Your task to perform on an android device: Search for the new Nintendo switch on Walmart. Image 0: 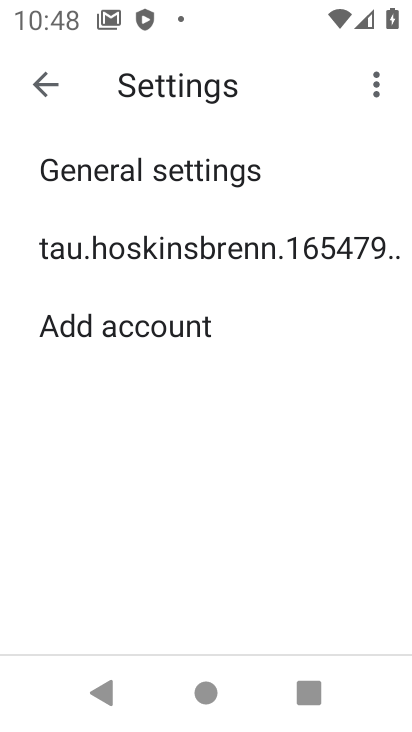
Step 0: press home button
Your task to perform on an android device: Search for the new Nintendo switch on Walmart. Image 1: 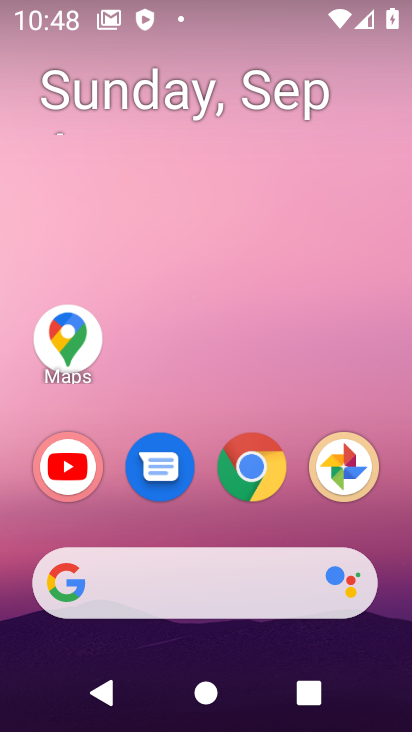
Step 1: click (249, 463)
Your task to perform on an android device: Search for the new Nintendo switch on Walmart. Image 2: 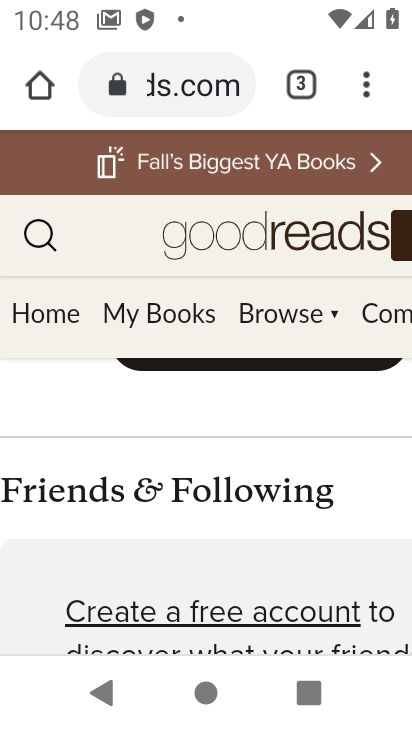
Step 2: click (166, 95)
Your task to perform on an android device: Search for the new Nintendo switch on Walmart. Image 3: 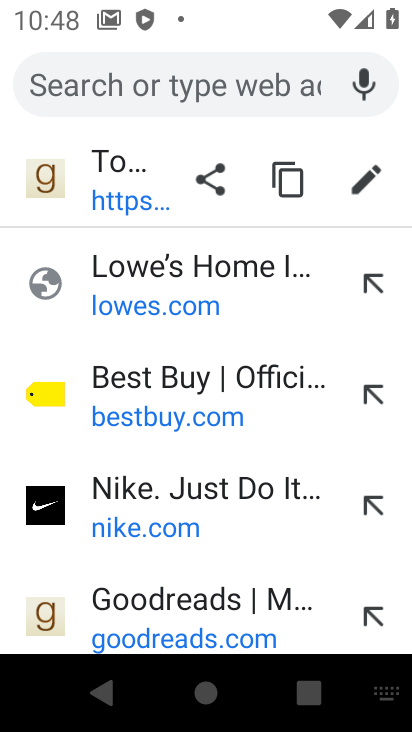
Step 3: type "walmart"
Your task to perform on an android device: Search for the new Nintendo switch on Walmart. Image 4: 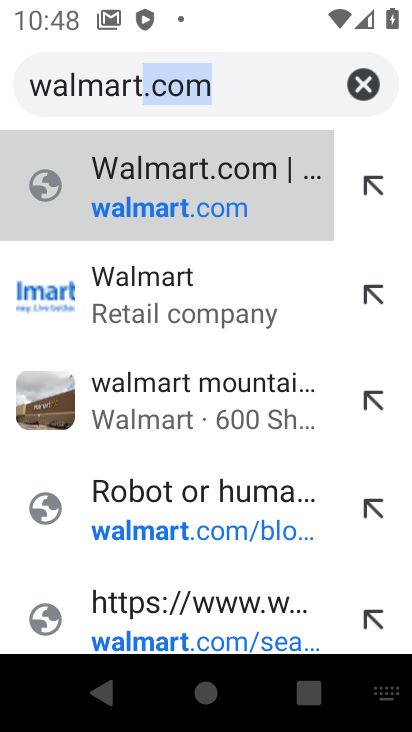
Step 4: click (147, 308)
Your task to perform on an android device: Search for the new Nintendo switch on Walmart. Image 5: 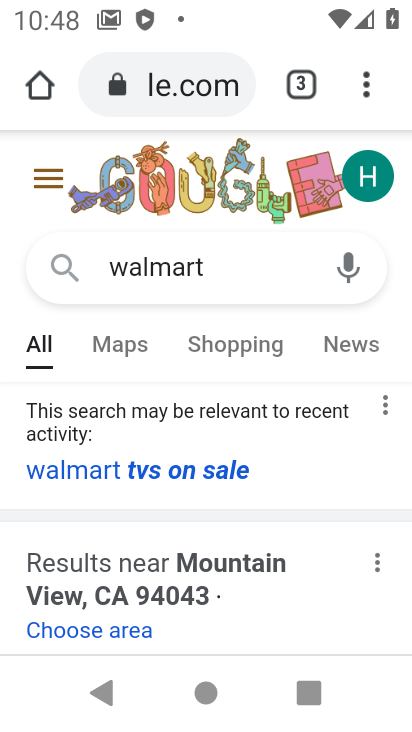
Step 5: drag from (383, 611) to (401, 160)
Your task to perform on an android device: Search for the new Nintendo switch on Walmart. Image 6: 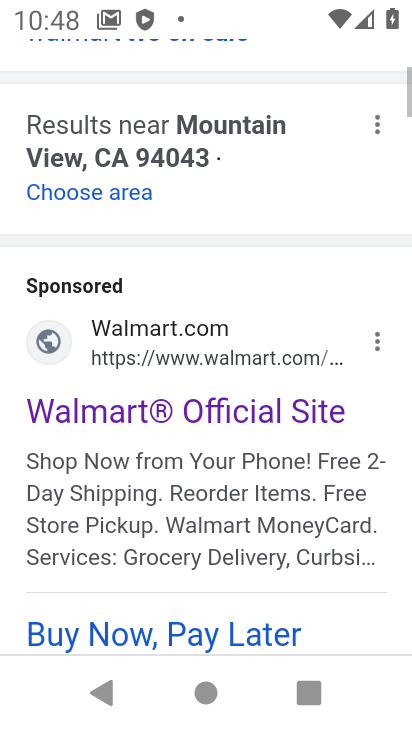
Step 6: drag from (367, 578) to (390, 98)
Your task to perform on an android device: Search for the new Nintendo switch on Walmart. Image 7: 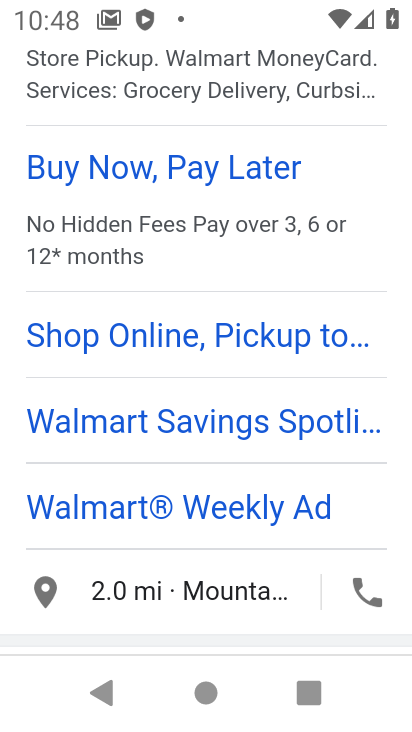
Step 7: drag from (352, 519) to (392, 117)
Your task to perform on an android device: Search for the new Nintendo switch on Walmart. Image 8: 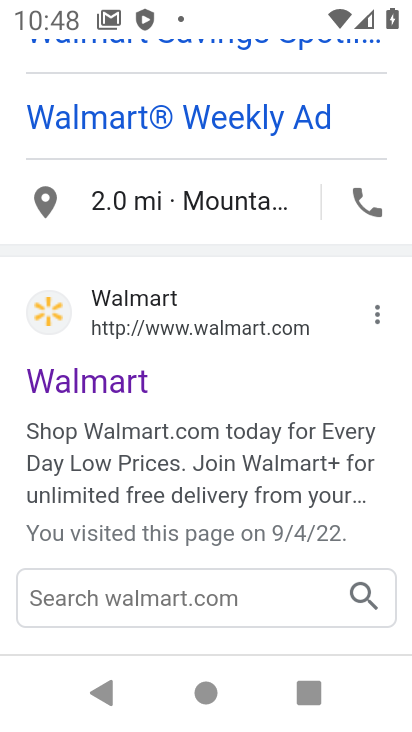
Step 8: click (90, 387)
Your task to perform on an android device: Search for the new Nintendo switch on Walmart. Image 9: 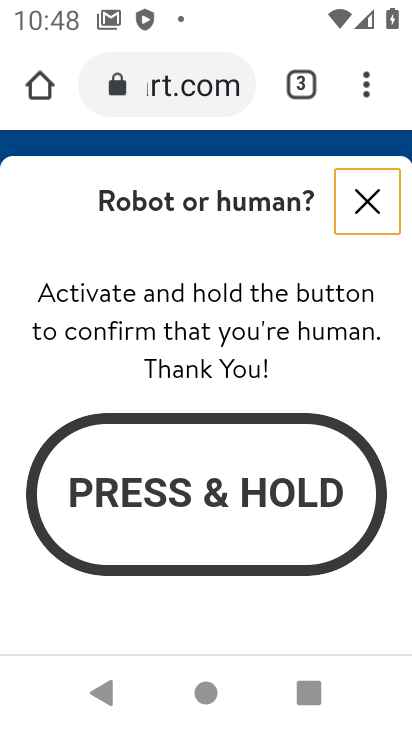
Step 9: click (362, 198)
Your task to perform on an android device: Search for the new Nintendo switch on Walmart. Image 10: 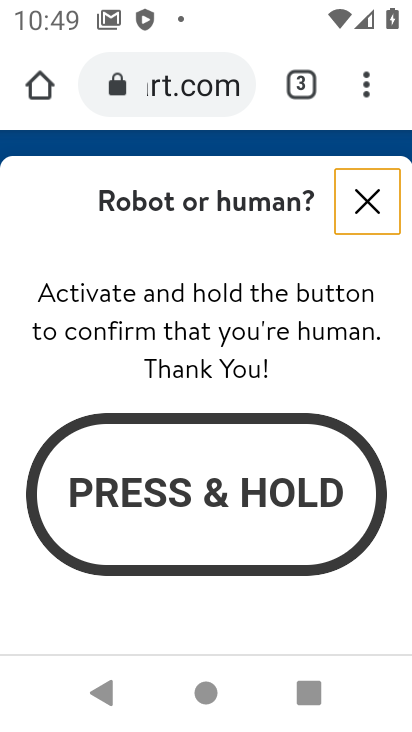
Step 10: click (361, 201)
Your task to perform on an android device: Search for the new Nintendo switch on Walmart. Image 11: 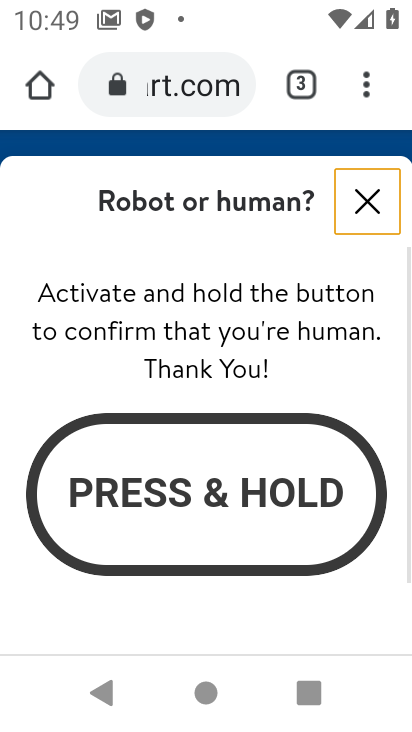
Step 11: click (360, 201)
Your task to perform on an android device: Search for the new Nintendo switch on Walmart. Image 12: 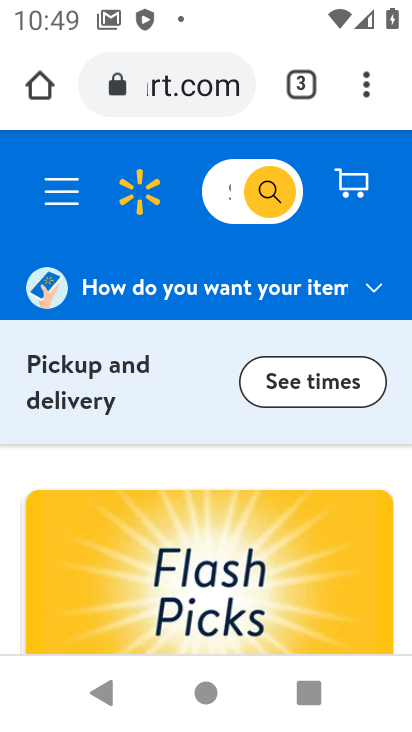
Step 12: click (269, 190)
Your task to perform on an android device: Search for the new Nintendo switch on Walmart. Image 13: 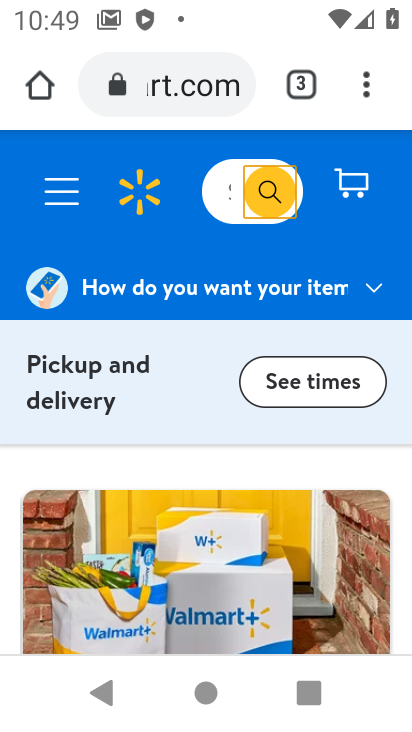
Step 13: click (267, 191)
Your task to perform on an android device: Search for the new Nintendo switch on Walmart. Image 14: 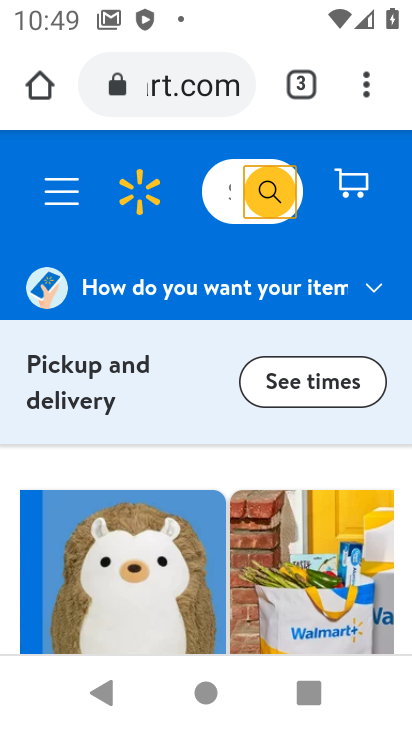
Step 14: click (272, 182)
Your task to perform on an android device: Search for the new Nintendo switch on Walmart. Image 15: 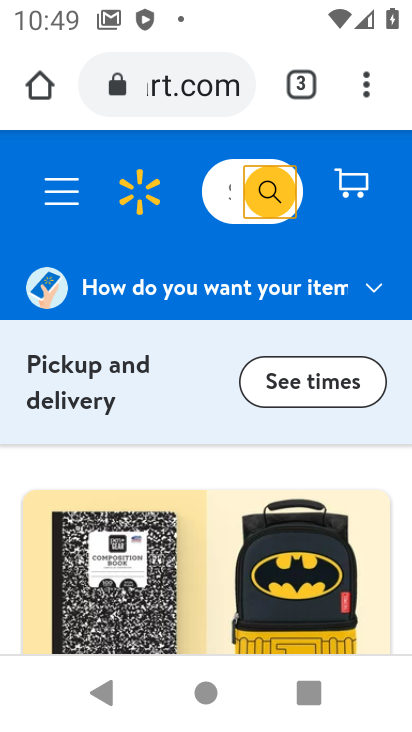
Step 15: click (262, 193)
Your task to perform on an android device: Search for the new Nintendo switch on Walmart. Image 16: 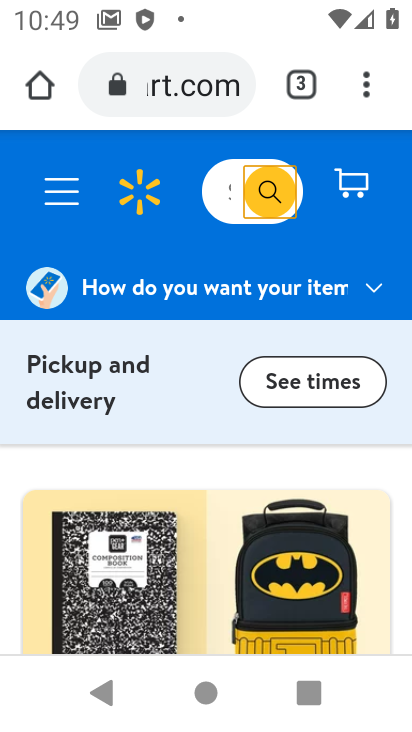
Step 16: click (262, 193)
Your task to perform on an android device: Search for the new Nintendo switch on Walmart. Image 17: 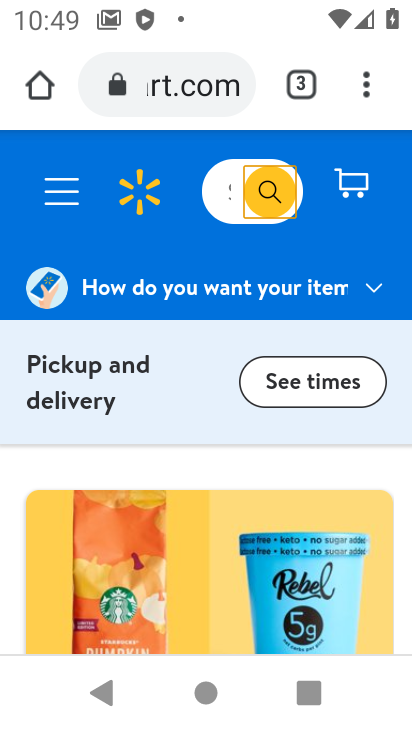
Step 17: task complete